Your task to perform on an android device: Go to accessibility settings Image 0: 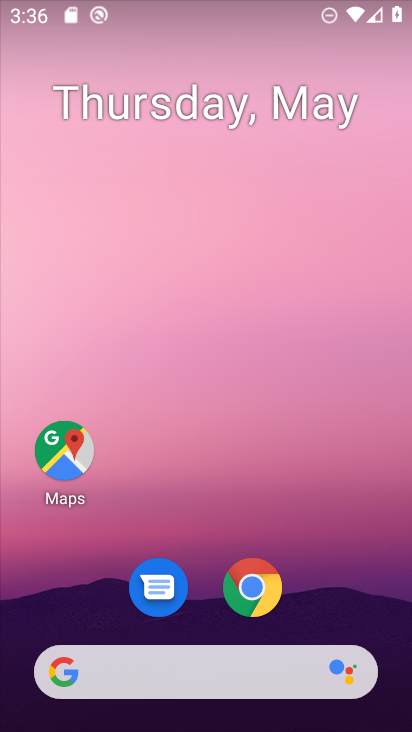
Step 0: drag from (375, 590) to (369, 217)
Your task to perform on an android device: Go to accessibility settings Image 1: 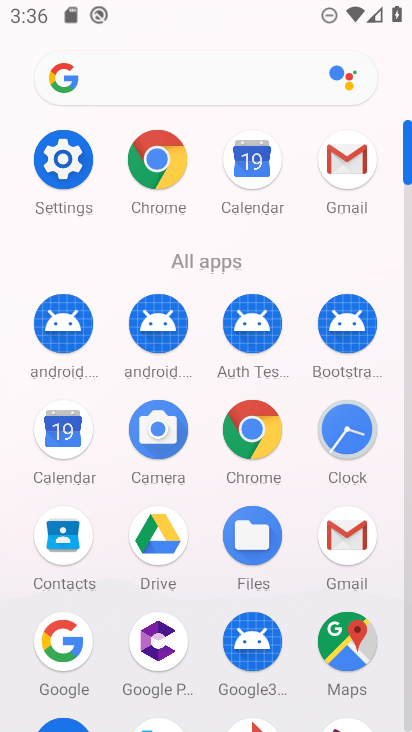
Step 1: click (85, 188)
Your task to perform on an android device: Go to accessibility settings Image 2: 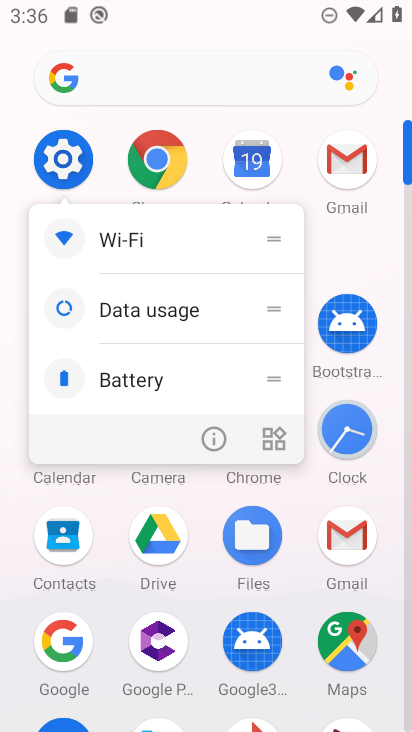
Step 2: click (48, 184)
Your task to perform on an android device: Go to accessibility settings Image 3: 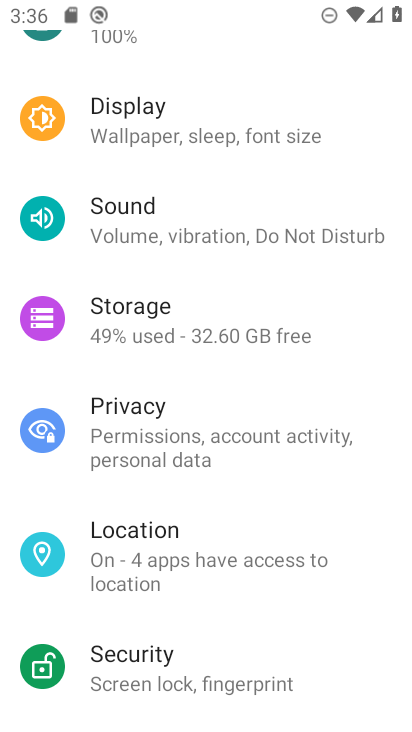
Step 3: drag from (365, 311) to (365, 388)
Your task to perform on an android device: Go to accessibility settings Image 4: 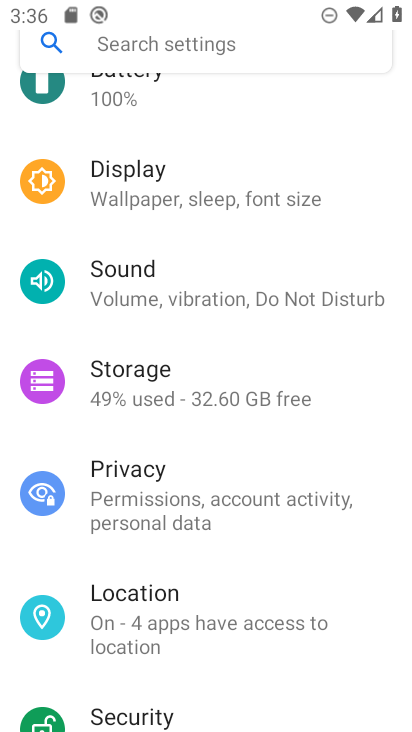
Step 4: drag from (369, 278) to (372, 378)
Your task to perform on an android device: Go to accessibility settings Image 5: 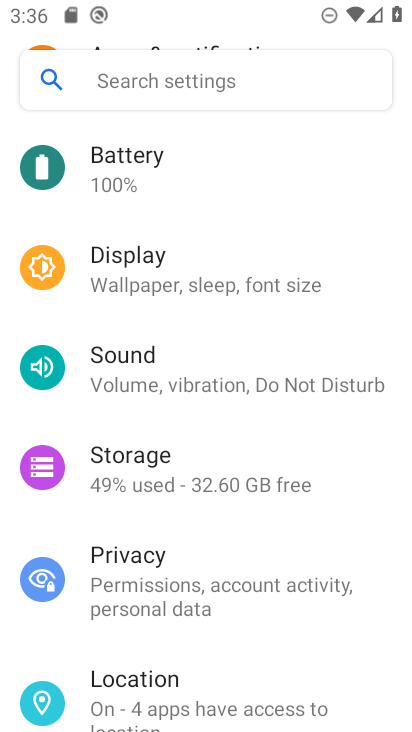
Step 5: drag from (375, 250) to (371, 333)
Your task to perform on an android device: Go to accessibility settings Image 6: 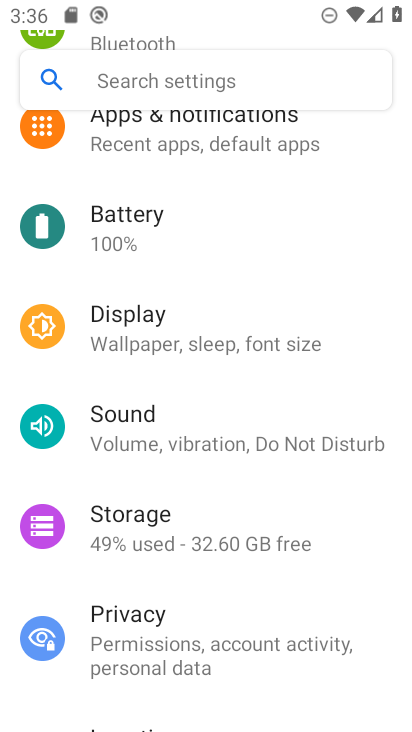
Step 6: drag from (364, 223) to (365, 326)
Your task to perform on an android device: Go to accessibility settings Image 7: 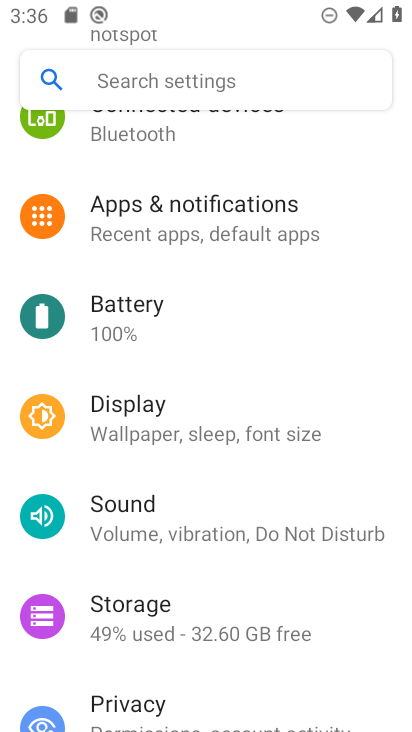
Step 7: drag from (343, 200) to (346, 310)
Your task to perform on an android device: Go to accessibility settings Image 8: 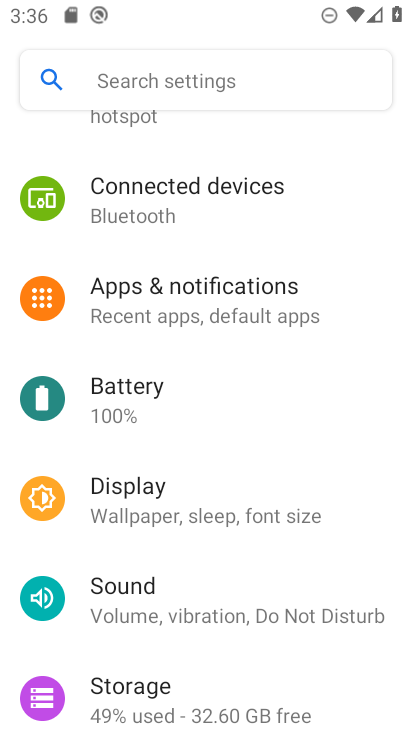
Step 8: drag from (347, 201) to (349, 296)
Your task to perform on an android device: Go to accessibility settings Image 9: 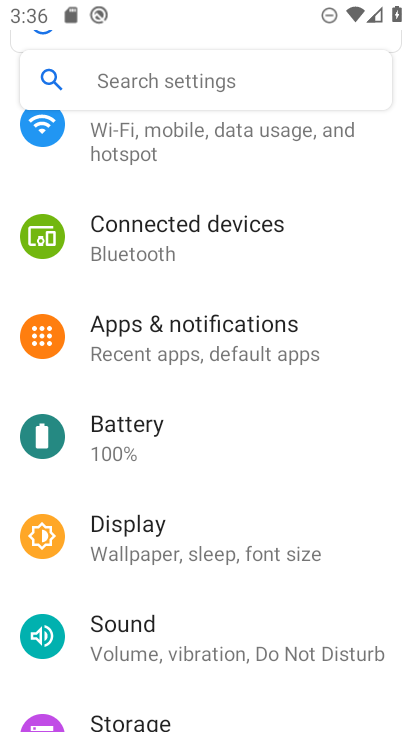
Step 9: drag from (338, 196) to (337, 303)
Your task to perform on an android device: Go to accessibility settings Image 10: 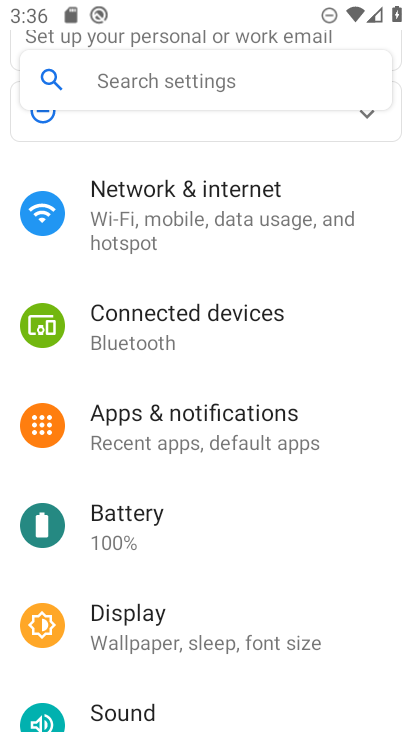
Step 10: drag from (348, 186) to (350, 340)
Your task to perform on an android device: Go to accessibility settings Image 11: 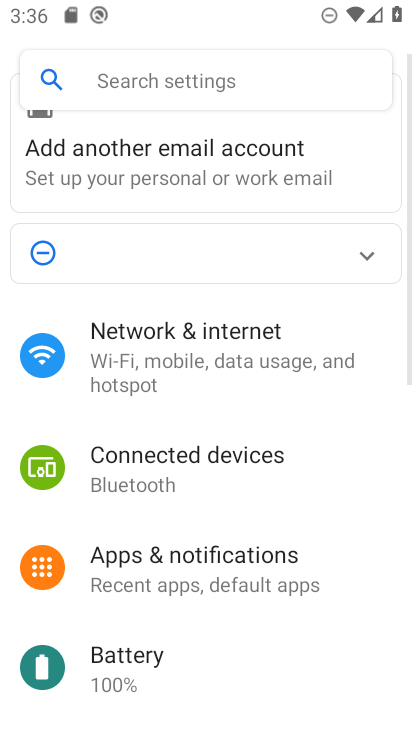
Step 11: drag from (322, 445) to (339, 350)
Your task to perform on an android device: Go to accessibility settings Image 12: 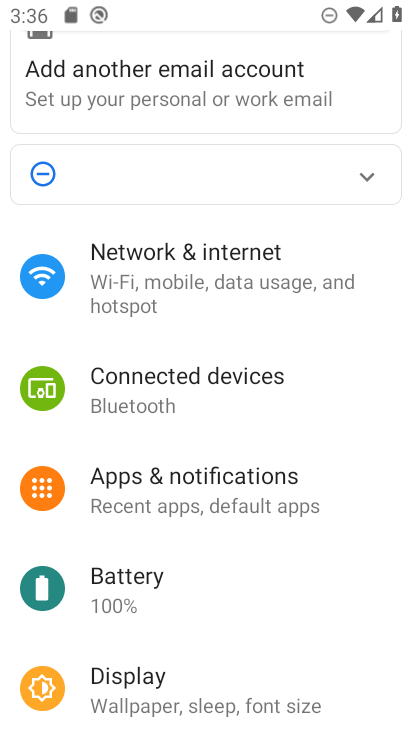
Step 12: drag from (339, 478) to (339, 373)
Your task to perform on an android device: Go to accessibility settings Image 13: 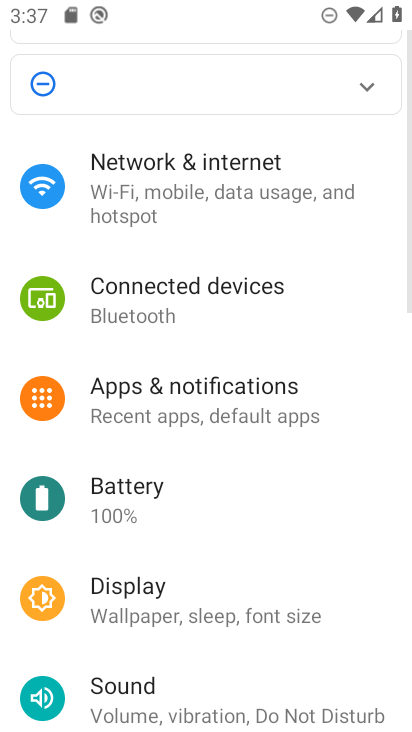
Step 13: drag from (331, 507) to (337, 403)
Your task to perform on an android device: Go to accessibility settings Image 14: 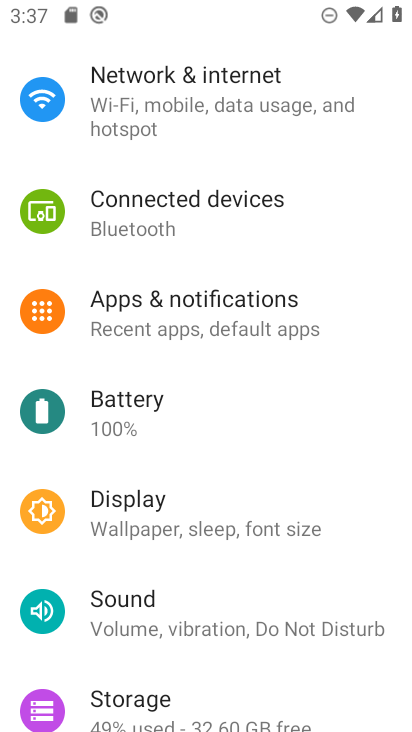
Step 14: drag from (327, 540) to (335, 379)
Your task to perform on an android device: Go to accessibility settings Image 15: 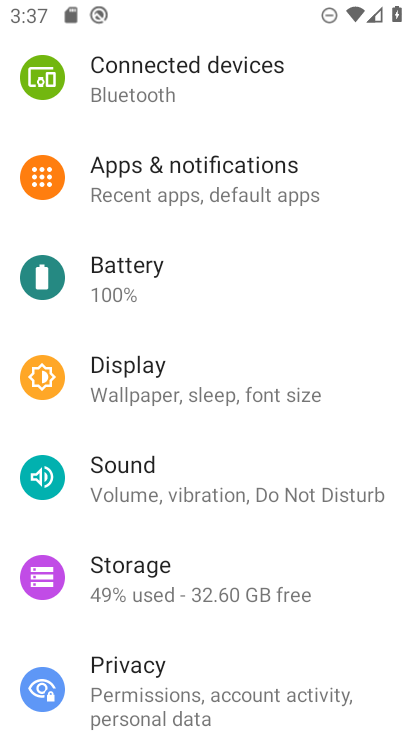
Step 15: drag from (365, 612) to (357, 455)
Your task to perform on an android device: Go to accessibility settings Image 16: 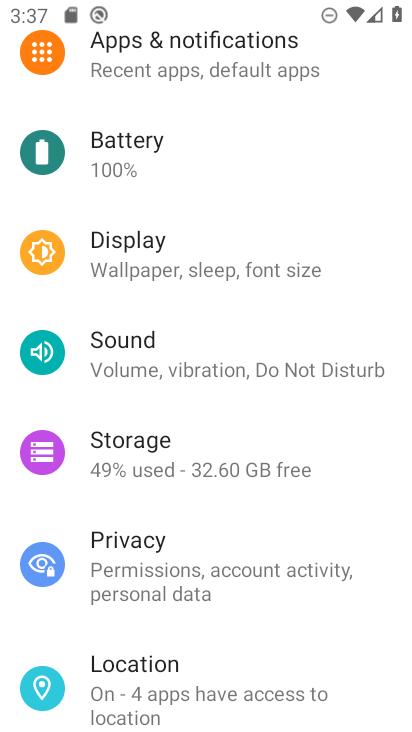
Step 16: drag from (345, 643) to (345, 495)
Your task to perform on an android device: Go to accessibility settings Image 17: 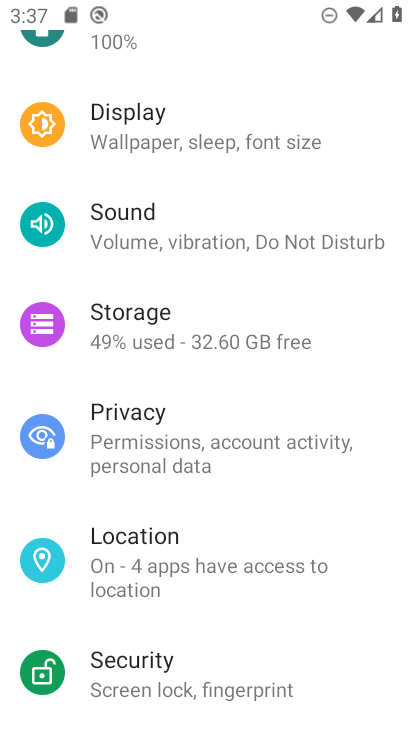
Step 17: drag from (304, 629) to (306, 513)
Your task to perform on an android device: Go to accessibility settings Image 18: 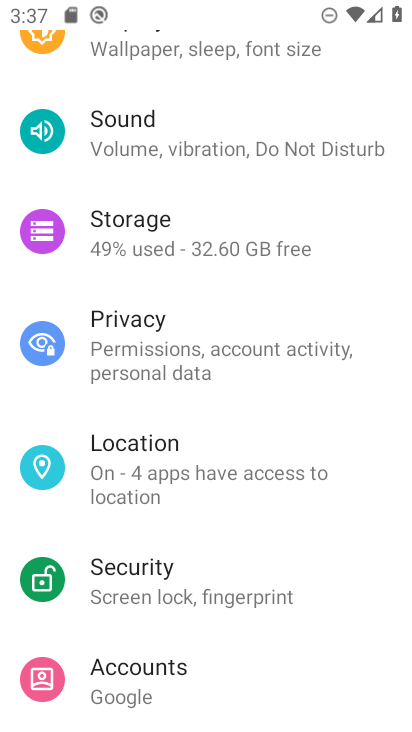
Step 18: drag from (295, 650) to (300, 511)
Your task to perform on an android device: Go to accessibility settings Image 19: 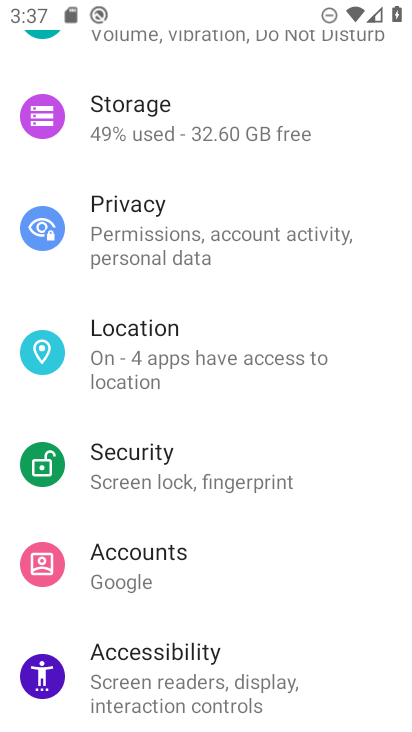
Step 19: drag from (317, 673) to (315, 552)
Your task to perform on an android device: Go to accessibility settings Image 20: 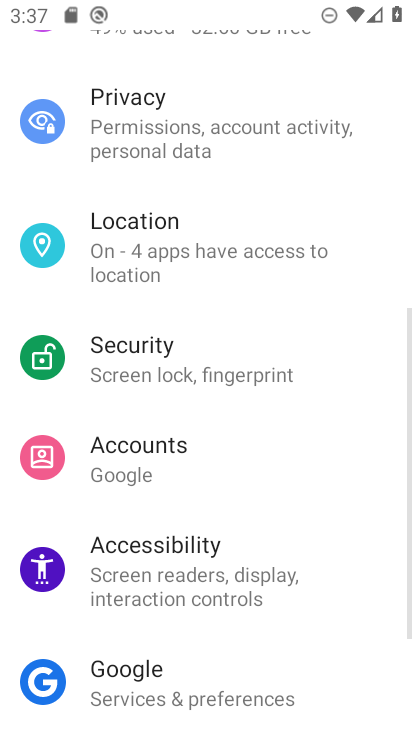
Step 20: click (231, 593)
Your task to perform on an android device: Go to accessibility settings Image 21: 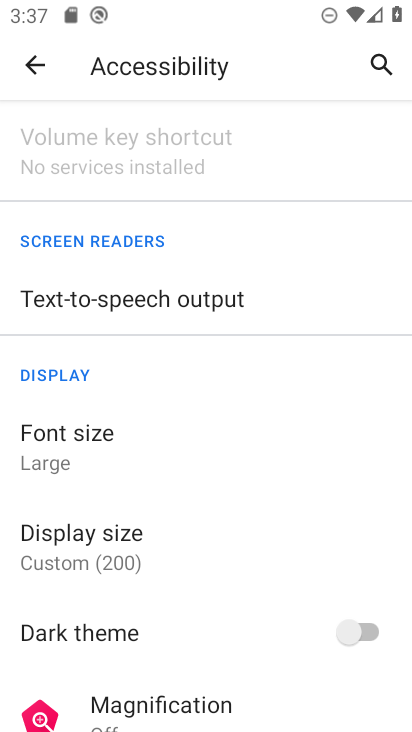
Step 21: task complete